Your task to perform on an android device: move a message to another label in the gmail app Image 0: 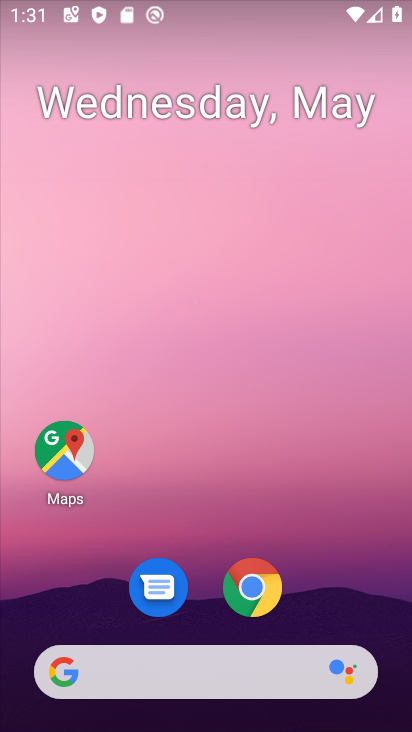
Step 0: drag from (327, 597) to (298, 89)
Your task to perform on an android device: move a message to another label in the gmail app Image 1: 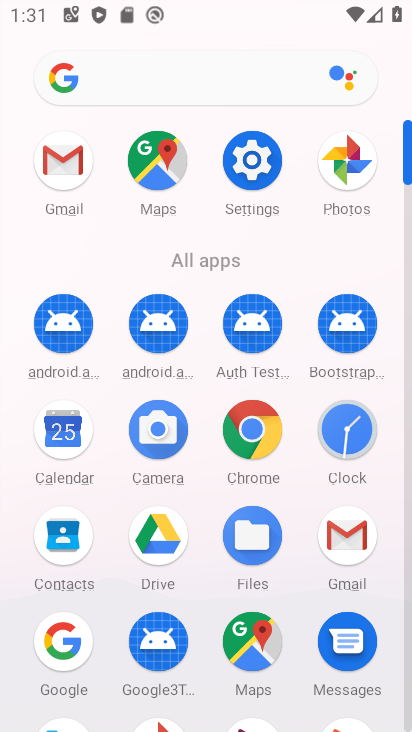
Step 1: click (337, 525)
Your task to perform on an android device: move a message to another label in the gmail app Image 2: 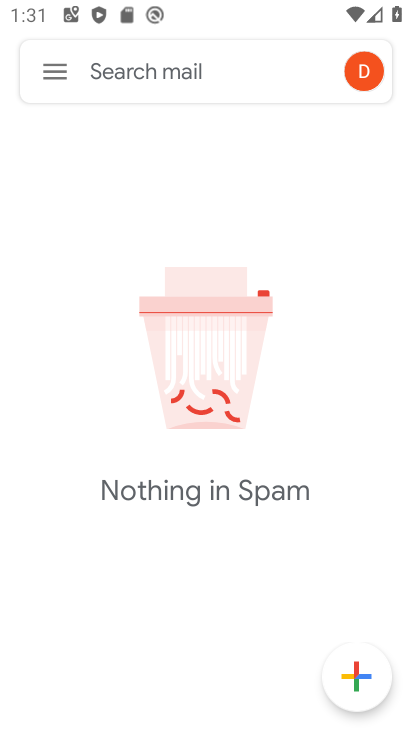
Step 2: click (56, 74)
Your task to perform on an android device: move a message to another label in the gmail app Image 3: 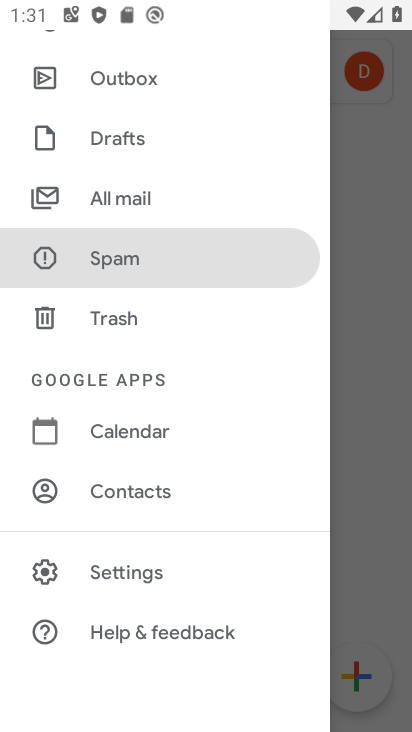
Step 3: drag from (156, 201) to (133, 633)
Your task to perform on an android device: move a message to another label in the gmail app Image 4: 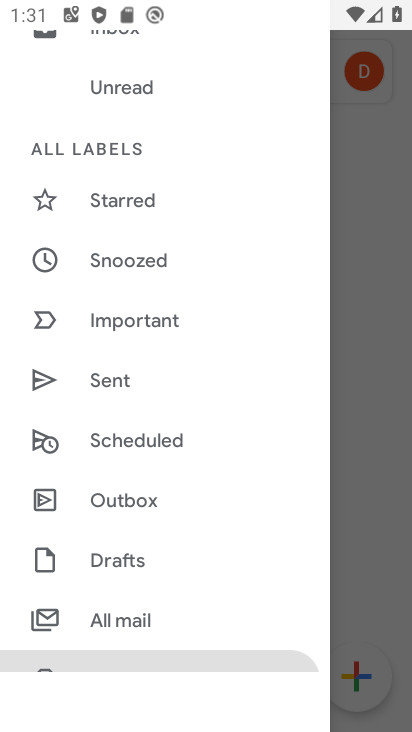
Step 4: click (133, 622)
Your task to perform on an android device: move a message to another label in the gmail app Image 5: 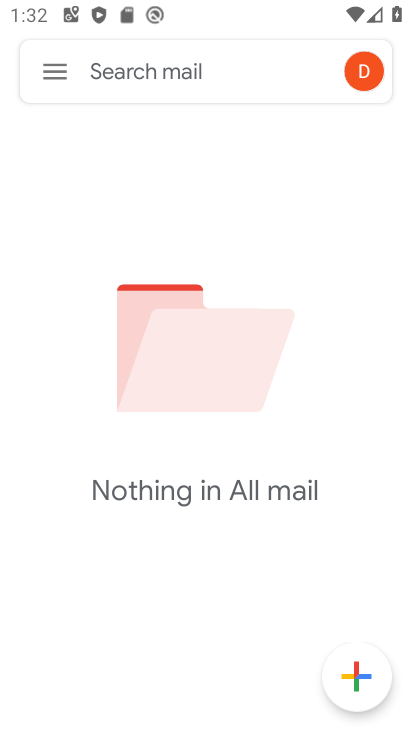
Step 5: task complete